Your task to perform on an android device: Open Google Image 0: 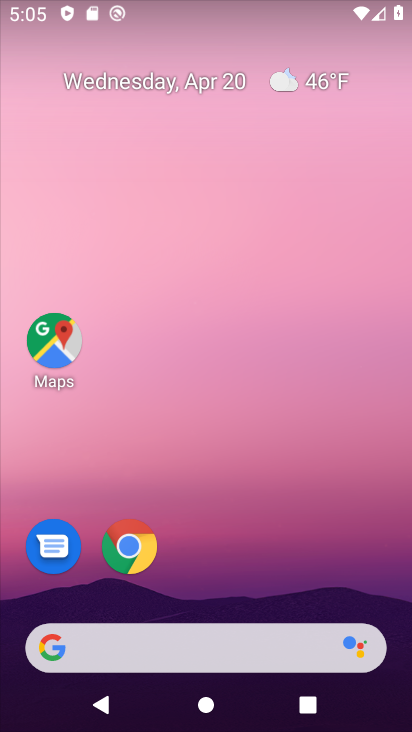
Step 0: drag from (309, 429) to (301, 83)
Your task to perform on an android device: Open Google Image 1: 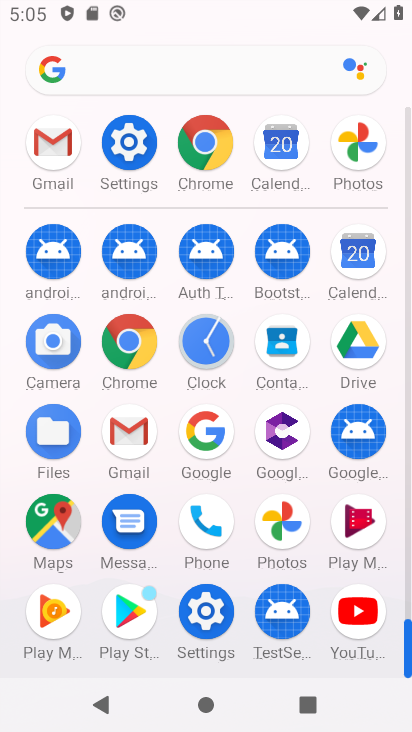
Step 1: click (195, 430)
Your task to perform on an android device: Open Google Image 2: 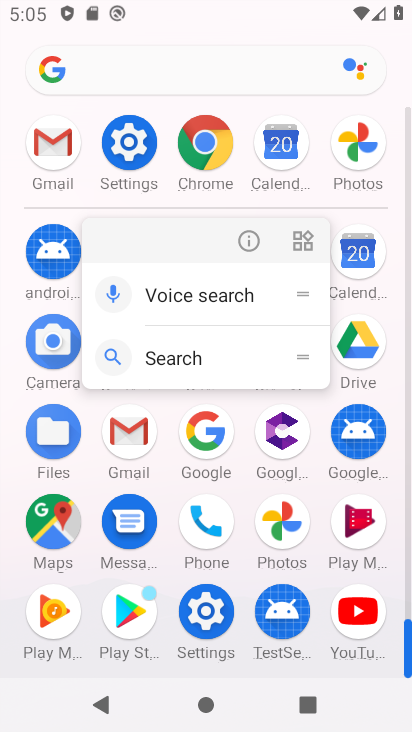
Step 2: click (209, 433)
Your task to perform on an android device: Open Google Image 3: 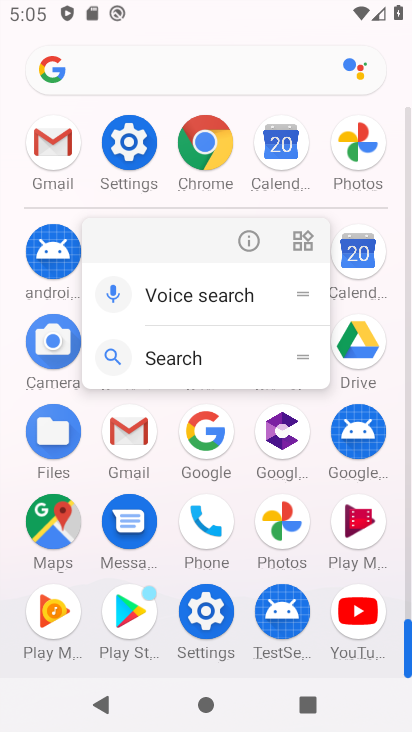
Step 3: click (209, 432)
Your task to perform on an android device: Open Google Image 4: 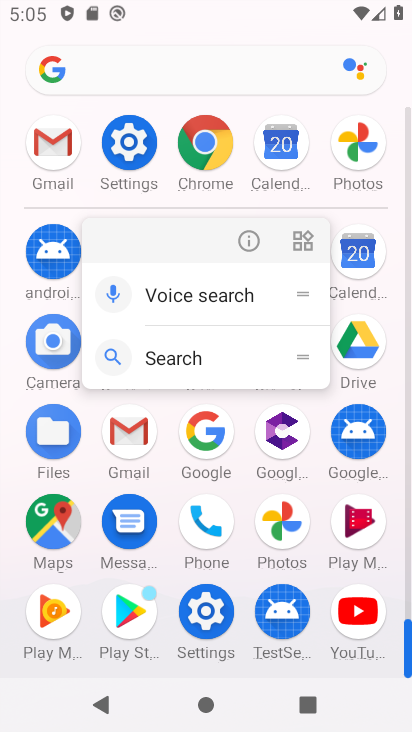
Step 4: click (209, 432)
Your task to perform on an android device: Open Google Image 5: 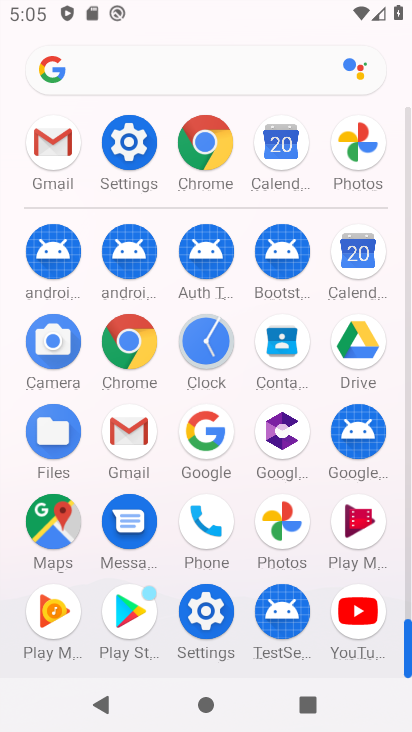
Step 5: click (209, 432)
Your task to perform on an android device: Open Google Image 6: 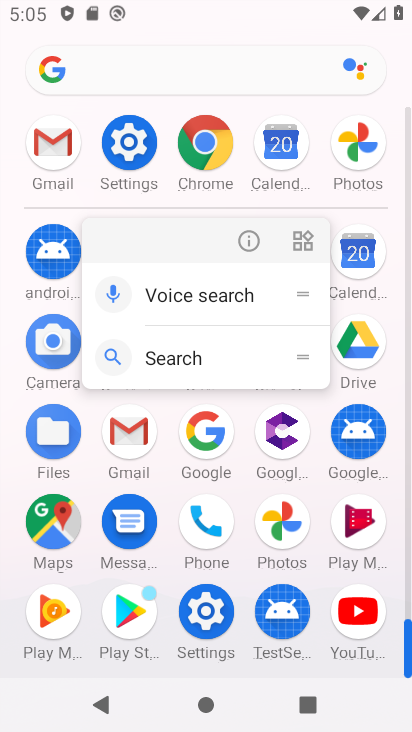
Step 6: click (209, 431)
Your task to perform on an android device: Open Google Image 7: 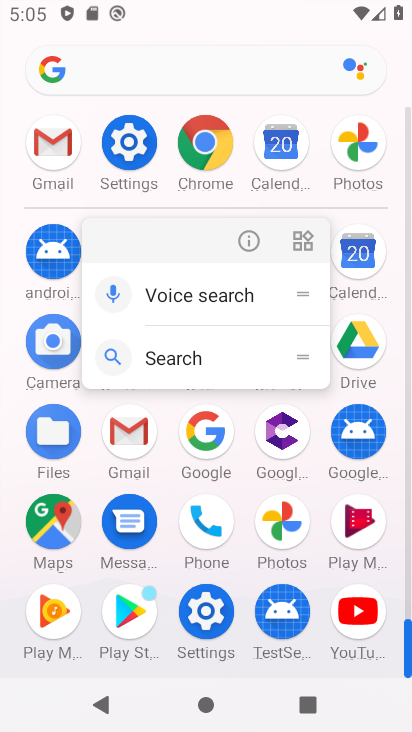
Step 7: click (209, 432)
Your task to perform on an android device: Open Google Image 8: 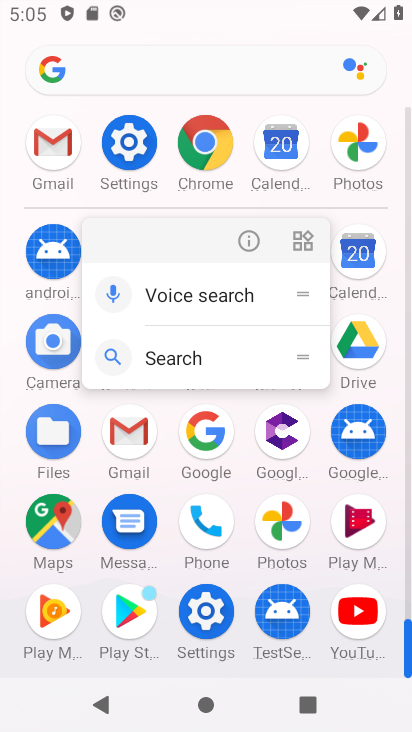
Step 8: click (209, 430)
Your task to perform on an android device: Open Google Image 9: 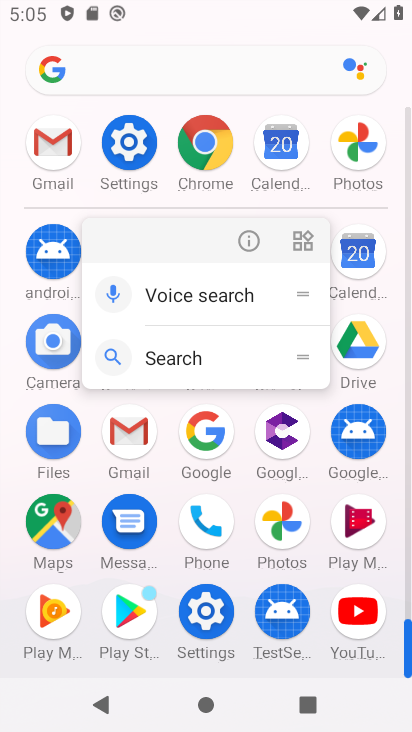
Step 9: click (209, 431)
Your task to perform on an android device: Open Google Image 10: 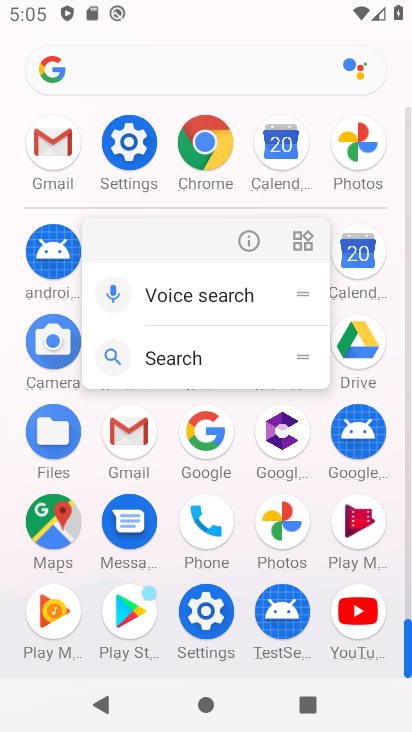
Step 10: click (209, 431)
Your task to perform on an android device: Open Google Image 11: 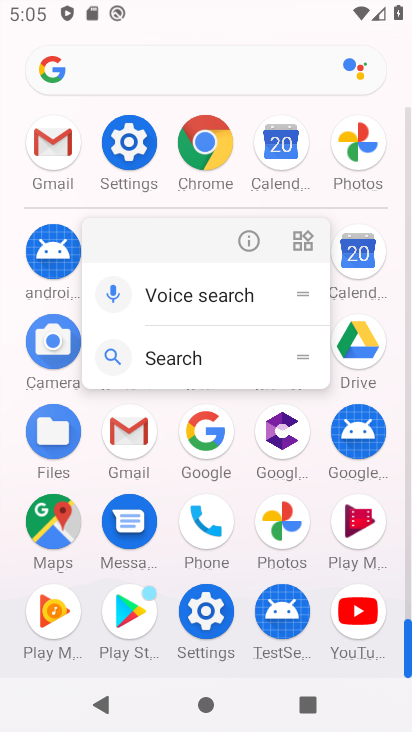
Step 11: click (209, 430)
Your task to perform on an android device: Open Google Image 12: 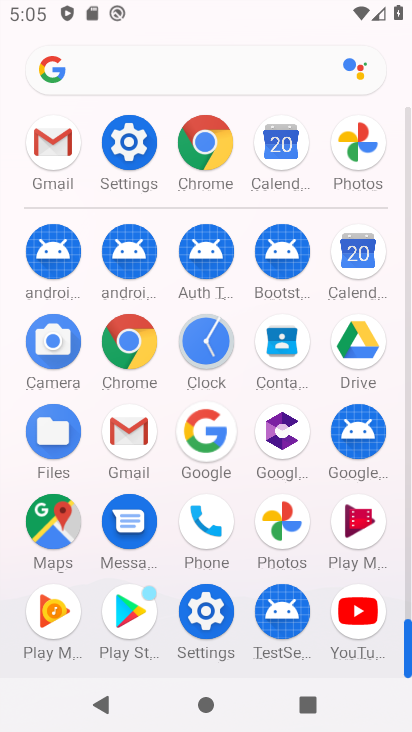
Step 12: click (209, 430)
Your task to perform on an android device: Open Google Image 13: 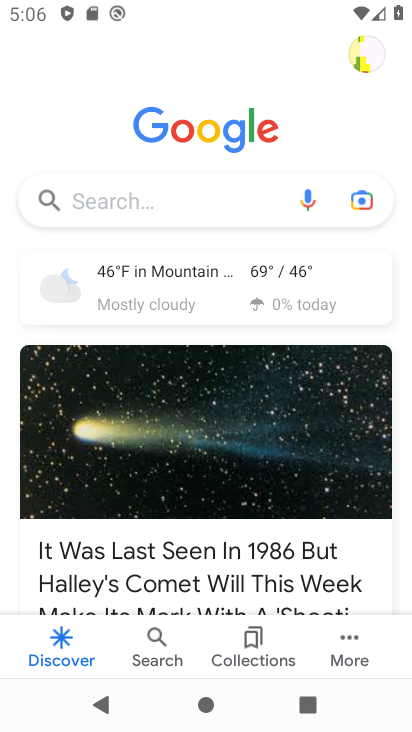
Step 13: task complete